Your task to perform on an android device: Open maps Image 0: 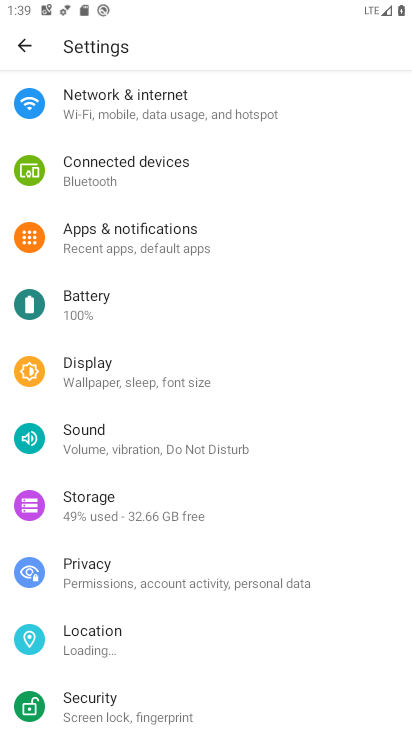
Step 0: press home button
Your task to perform on an android device: Open maps Image 1: 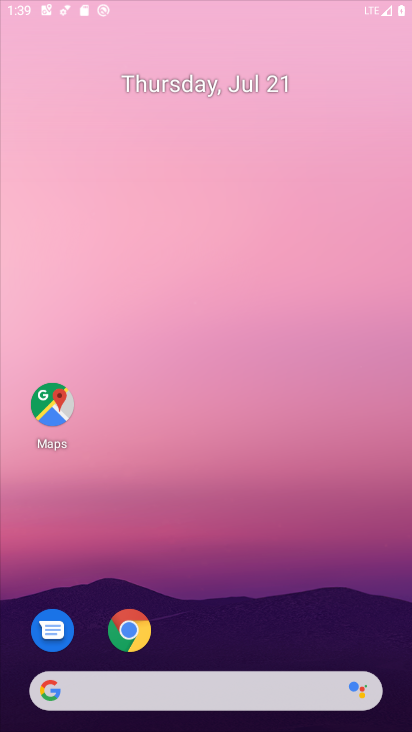
Step 1: drag from (302, 605) to (249, 221)
Your task to perform on an android device: Open maps Image 2: 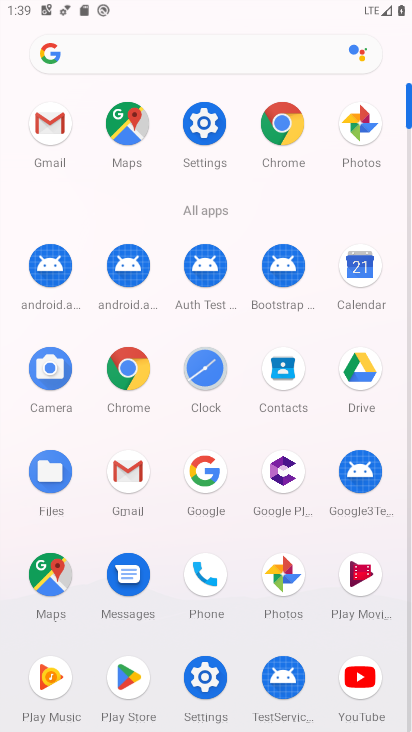
Step 2: click (128, 101)
Your task to perform on an android device: Open maps Image 3: 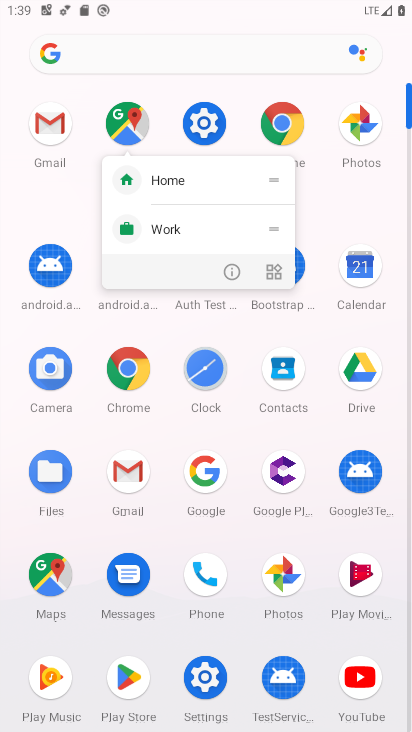
Step 3: click (146, 118)
Your task to perform on an android device: Open maps Image 4: 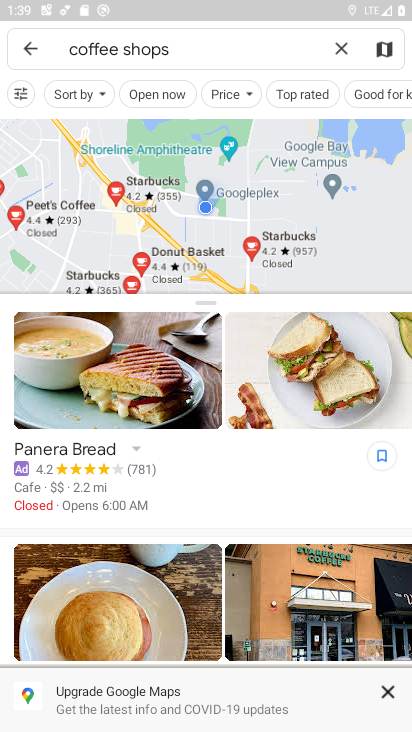
Step 4: task complete